Your task to perform on an android device: check google app version Image 0: 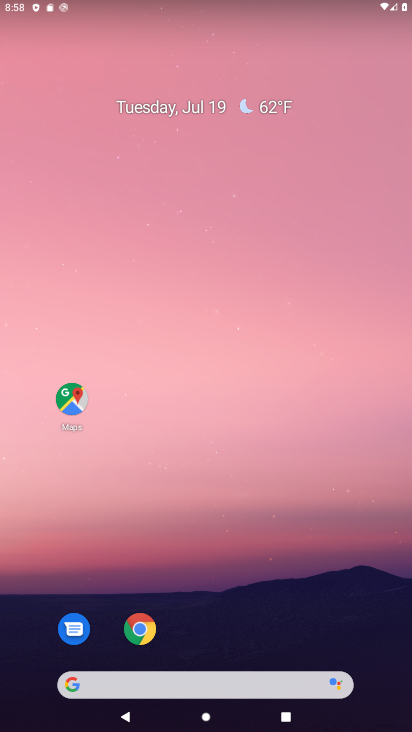
Step 0: press home button
Your task to perform on an android device: check google app version Image 1: 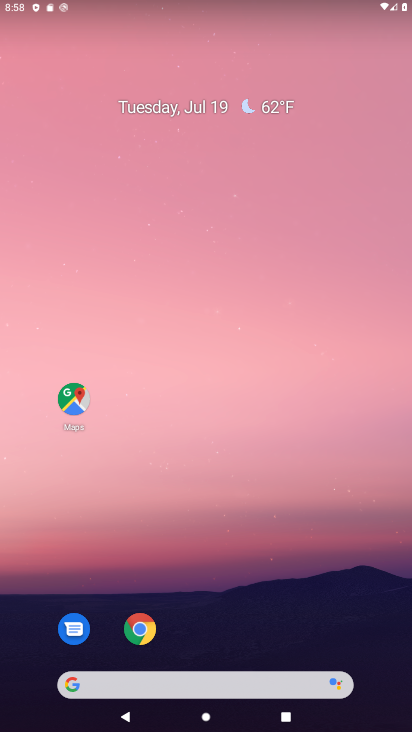
Step 1: drag from (203, 646) to (227, 19)
Your task to perform on an android device: check google app version Image 2: 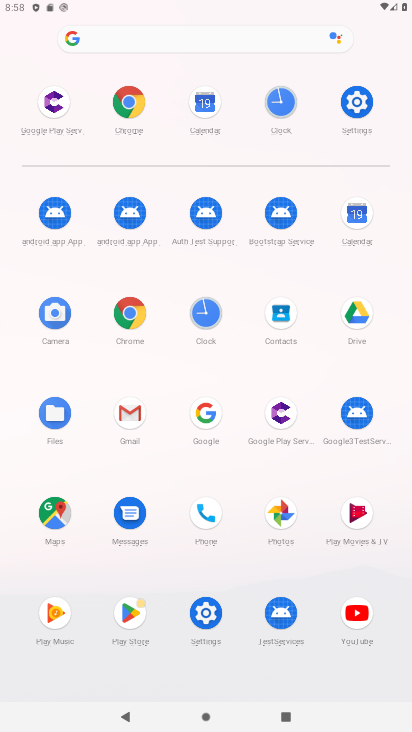
Step 2: click (205, 409)
Your task to perform on an android device: check google app version Image 3: 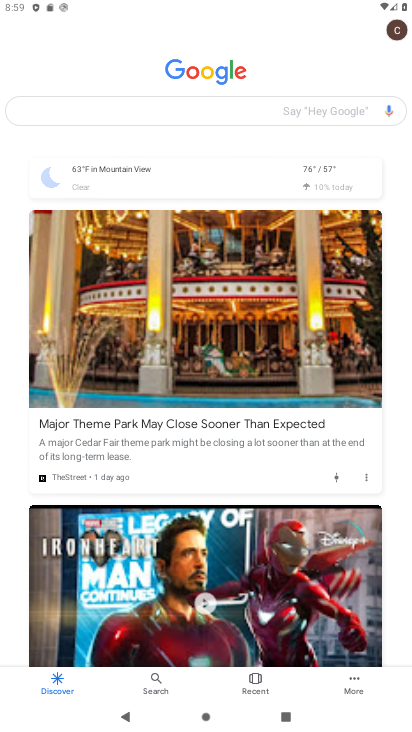
Step 3: click (354, 680)
Your task to perform on an android device: check google app version Image 4: 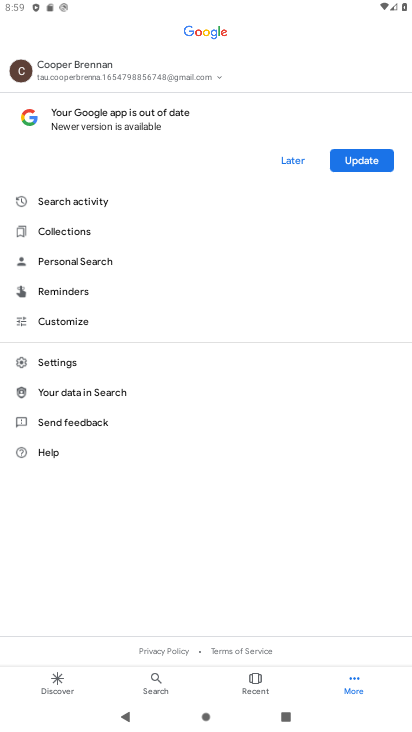
Step 4: click (70, 361)
Your task to perform on an android device: check google app version Image 5: 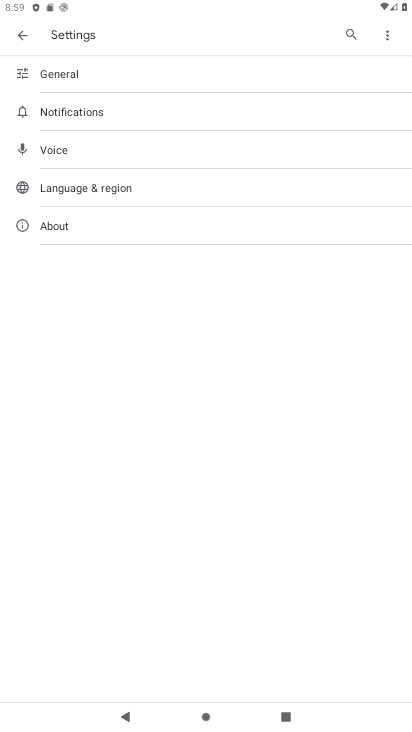
Step 5: click (62, 235)
Your task to perform on an android device: check google app version Image 6: 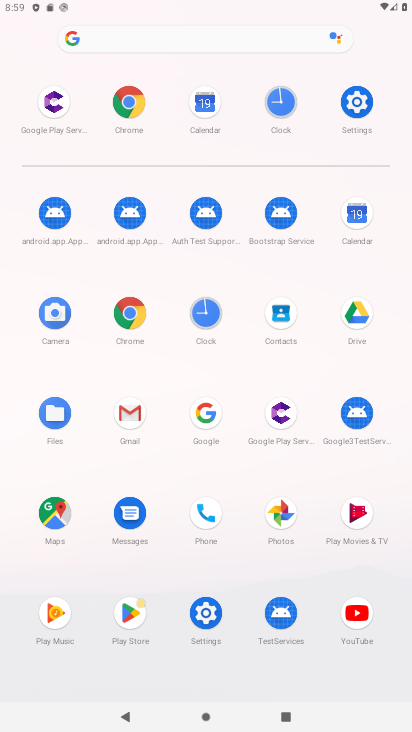
Step 6: task complete